Your task to perform on an android device: open a new tab in the chrome app Image 0: 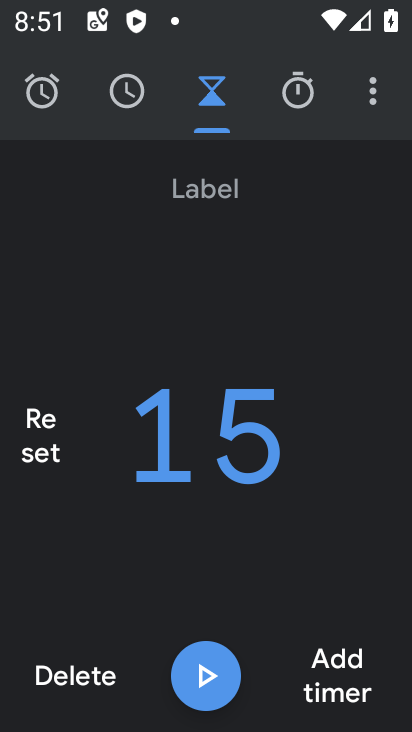
Step 0: press home button
Your task to perform on an android device: open a new tab in the chrome app Image 1: 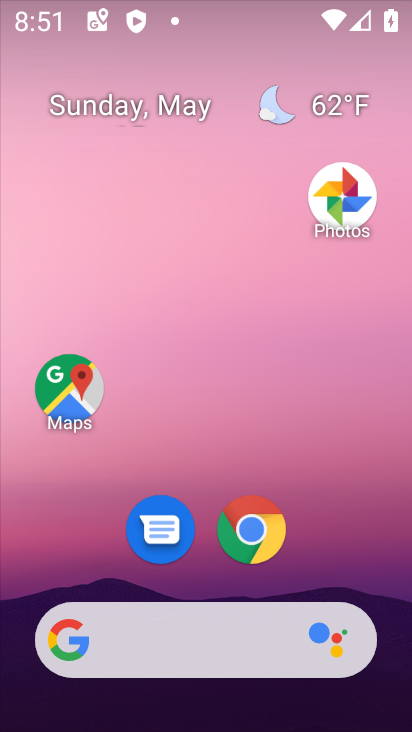
Step 1: drag from (383, 549) to (332, 137)
Your task to perform on an android device: open a new tab in the chrome app Image 2: 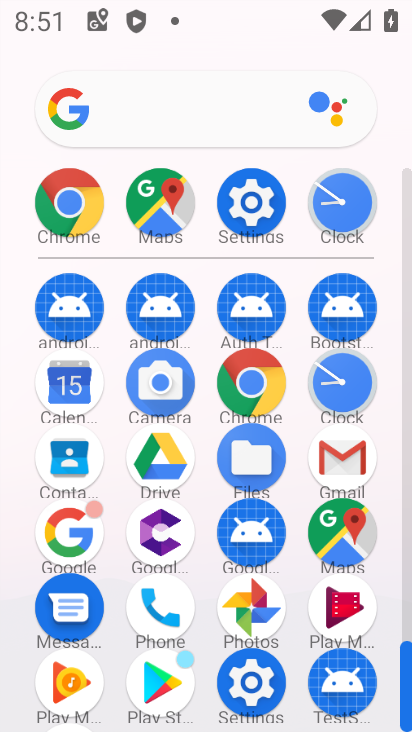
Step 2: click (260, 384)
Your task to perform on an android device: open a new tab in the chrome app Image 3: 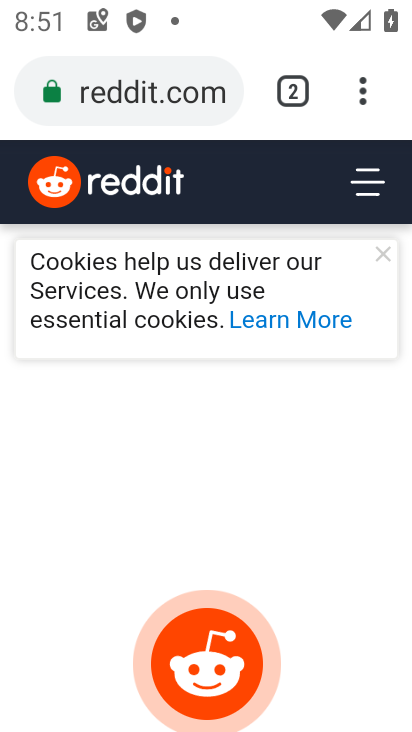
Step 3: click (313, 92)
Your task to perform on an android device: open a new tab in the chrome app Image 4: 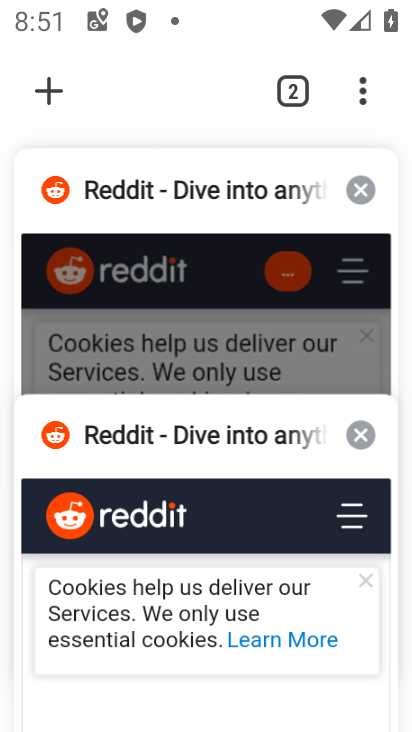
Step 4: click (42, 90)
Your task to perform on an android device: open a new tab in the chrome app Image 5: 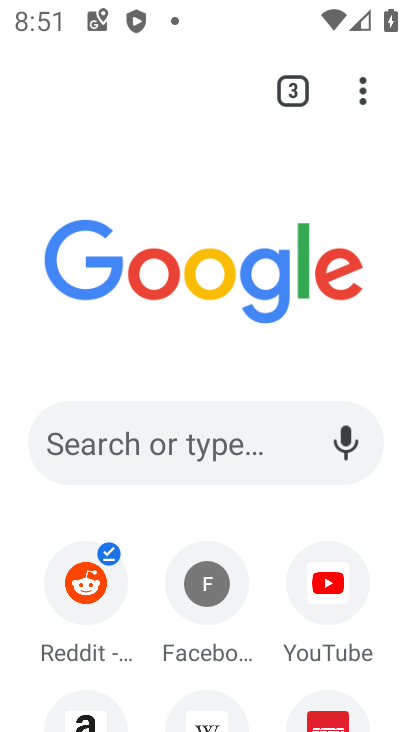
Step 5: task complete